Your task to perform on an android device: Search for pizza restaurants on Maps Image 0: 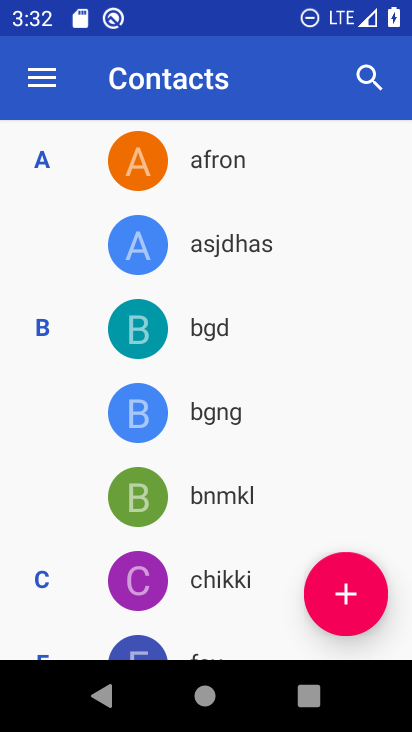
Step 0: press back button
Your task to perform on an android device: Search for pizza restaurants on Maps Image 1: 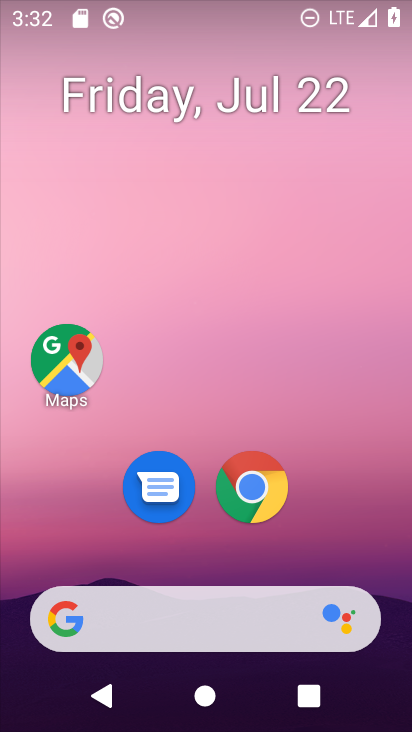
Step 1: click (73, 365)
Your task to perform on an android device: Search for pizza restaurants on Maps Image 2: 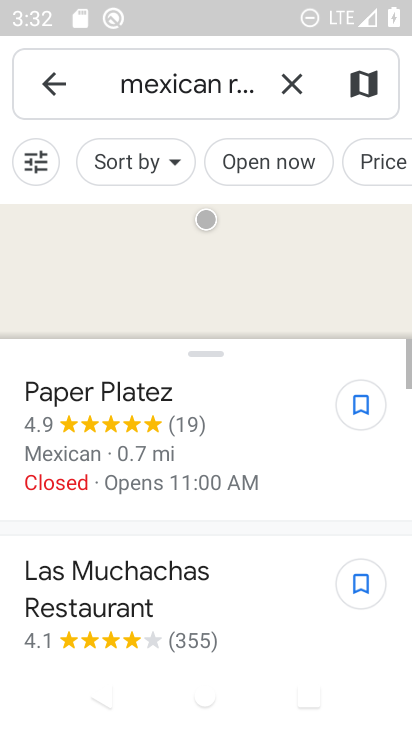
Step 2: click (281, 85)
Your task to perform on an android device: Search for pizza restaurants on Maps Image 3: 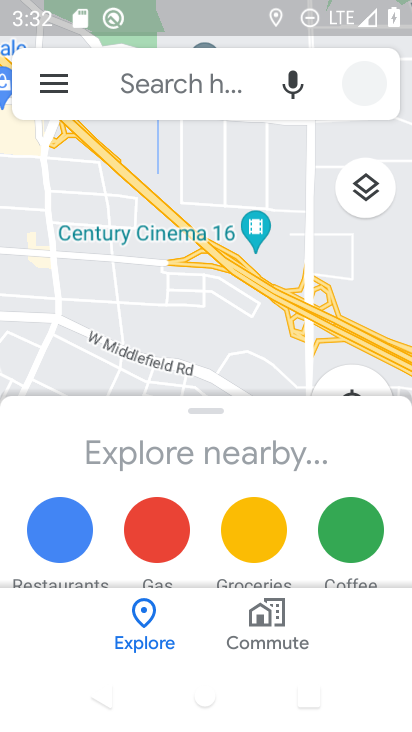
Step 3: click (133, 82)
Your task to perform on an android device: Search for pizza restaurants on Maps Image 4: 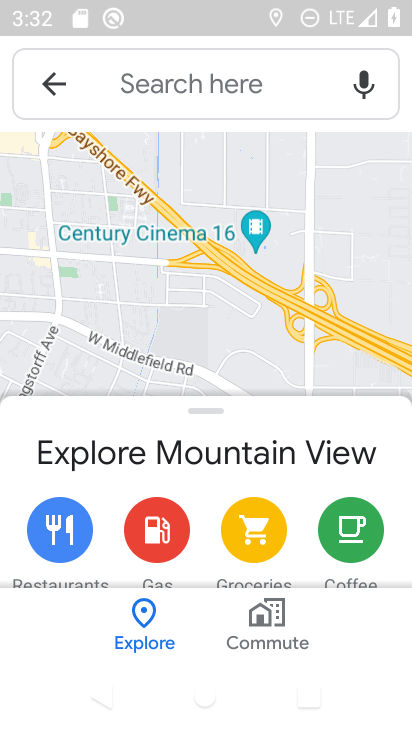
Step 4: click (145, 89)
Your task to perform on an android device: Search for pizza restaurants on Maps Image 5: 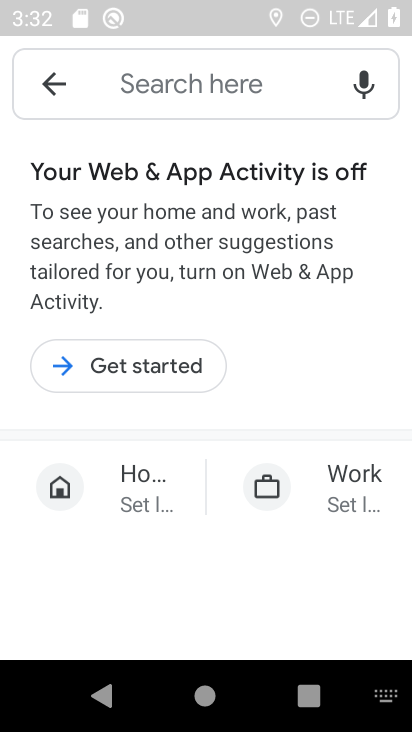
Step 5: type "pizza restaurants"
Your task to perform on an android device: Search for pizza restaurants on Maps Image 6: 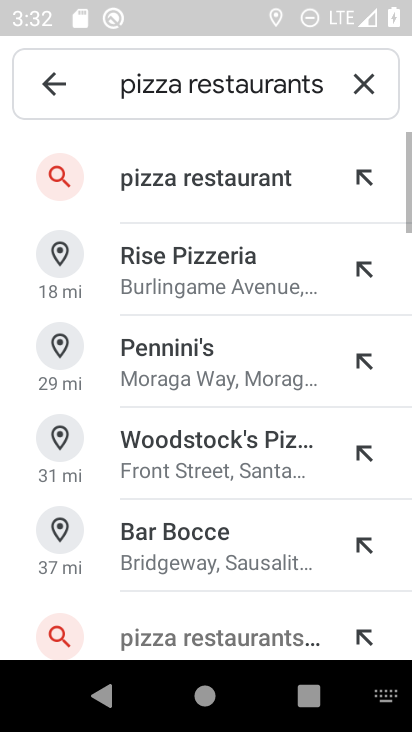
Step 6: click (175, 181)
Your task to perform on an android device: Search for pizza restaurants on Maps Image 7: 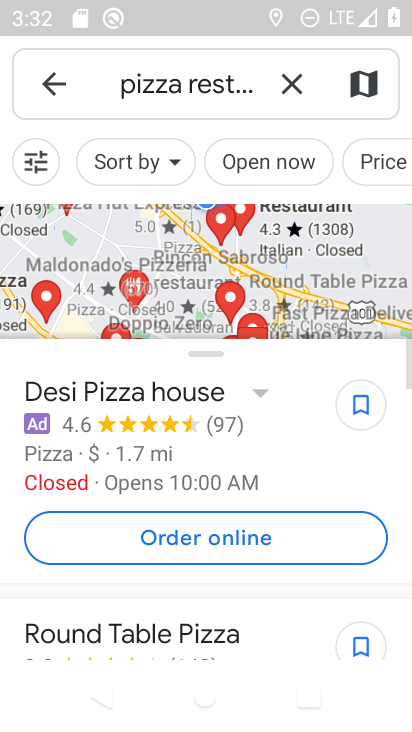
Step 7: task complete